Your task to perform on an android device: Check the news Image 0: 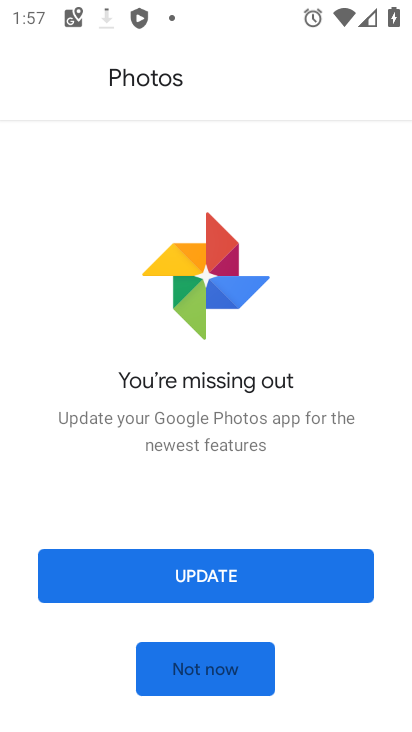
Step 0: press home button
Your task to perform on an android device: Check the news Image 1: 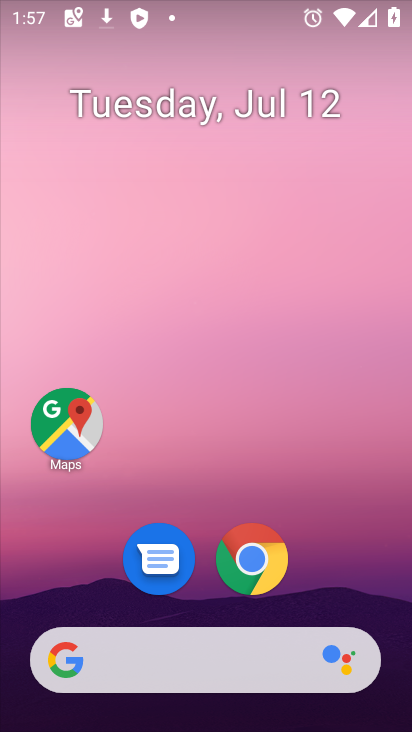
Step 1: task complete